Your task to perform on an android device: Go to Wikipedia Image 0: 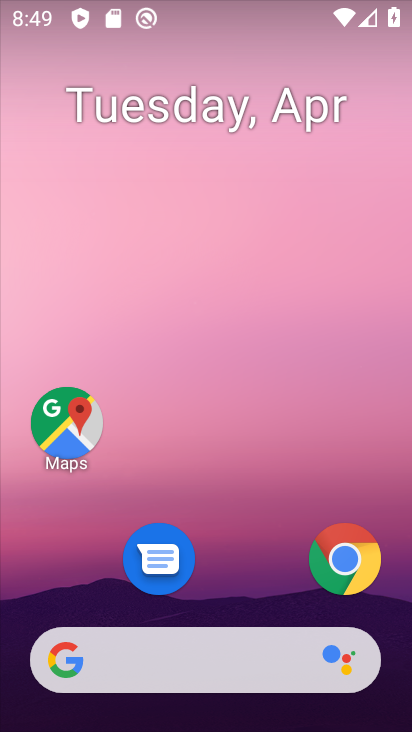
Step 0: click (343, 566)
Your task to perform on an android device: Go to Wikipedia Image 1: 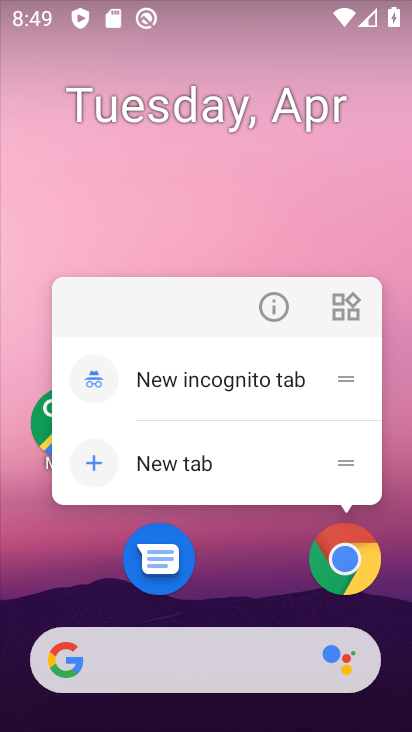
Step 1: click (343, 566)
Your task to perform on an android device: Go to Wikipedia Image 2: 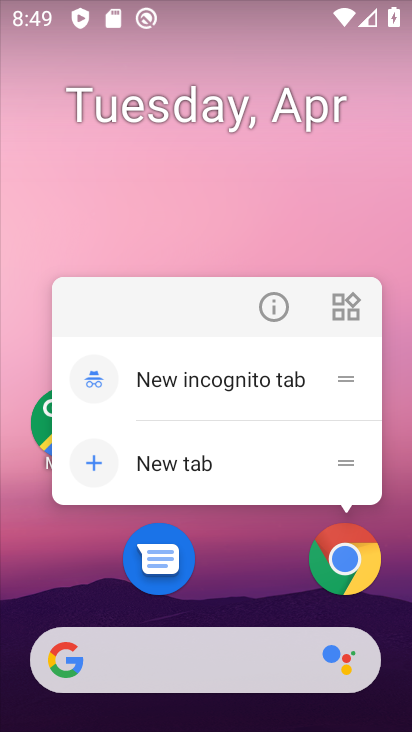
Step 2: drag from (222, 717) to (218, 79)
Your task to perform on an android device: Go to Wikipedia Image 3: 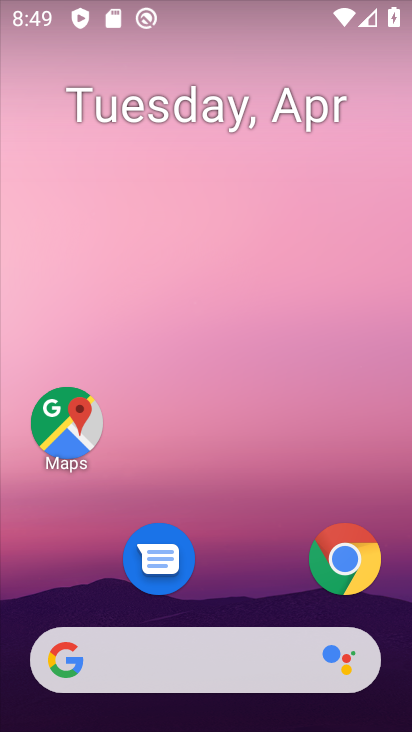
Step 3: drag from (239, 710) to (216, 67)
Your task to perform on an android device: Go to Wikipedia Image 4: 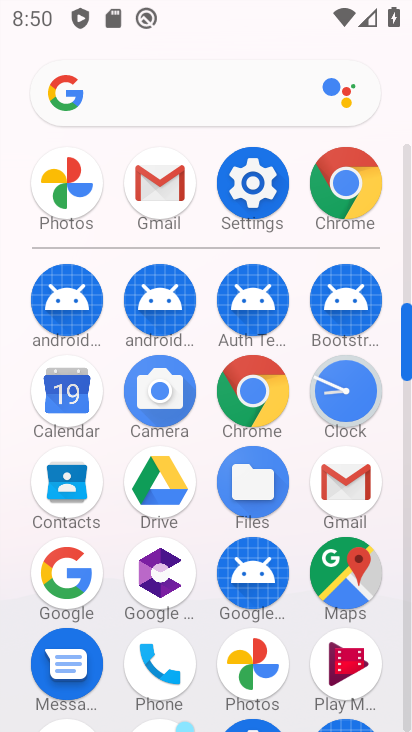
Step 4: click (345, 183)
Your task to perform on an android device: Go to Wikipedia Image 5: 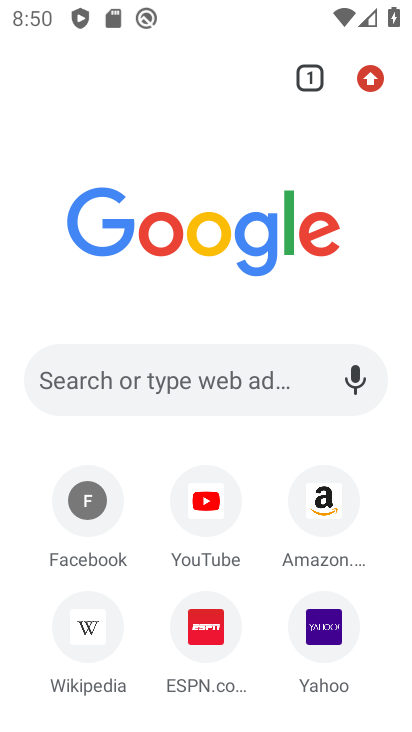
Step 5: click (374, 81)
Your task to perform on an android device: Go to Wikipedia Image 6: 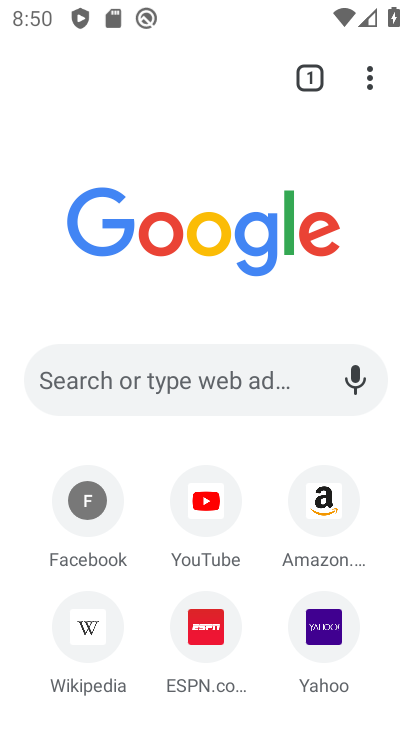
Step 6: click (93, 628)
Your task to perform on an android device: Go to Wikipedia Image 7: 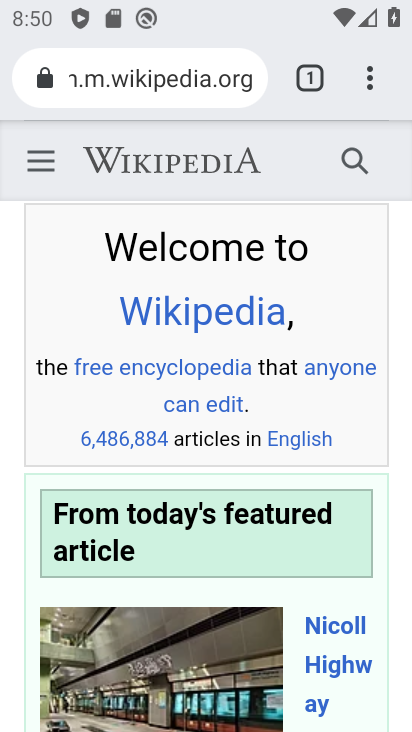
Step 7: task complete